Your task to perform on an android device: Open Reddit.com Image 0: 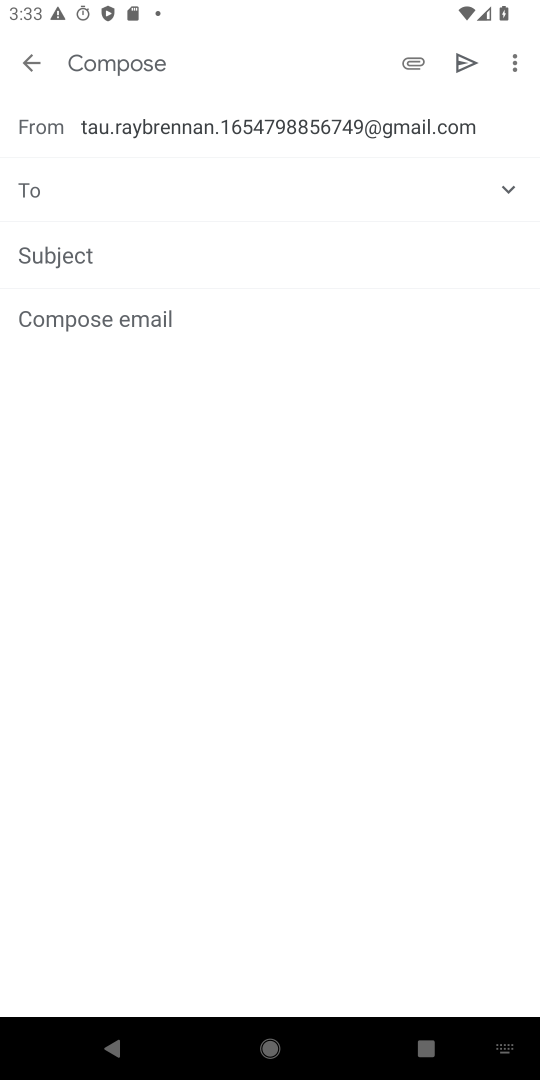
Step 0: press home button
Your task to perform on an android device: Open Reddit.com Image 1: 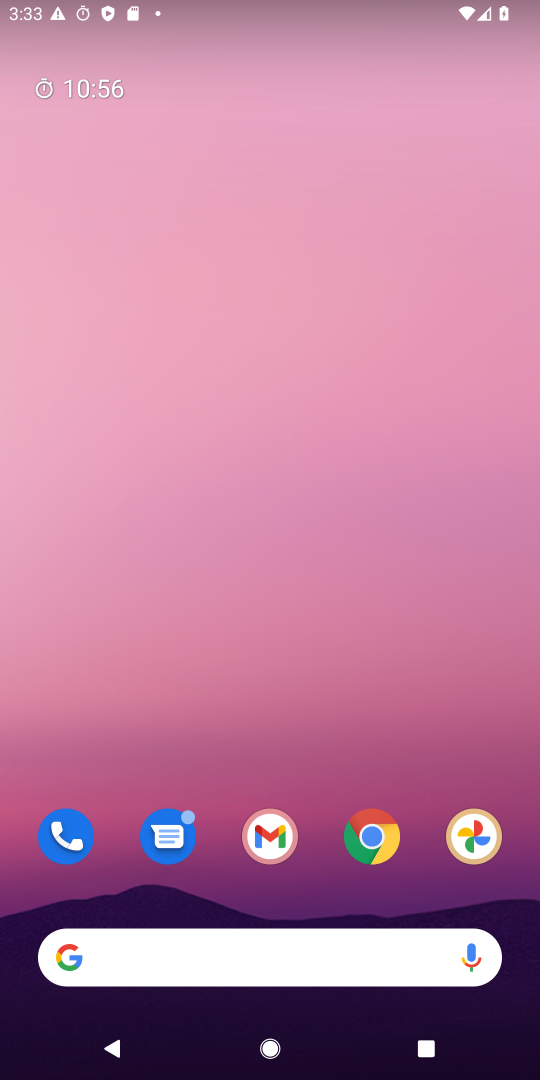
Step 1: click (366, 846)
Your task to perform on an android device: Open Reddit.com Image 2: 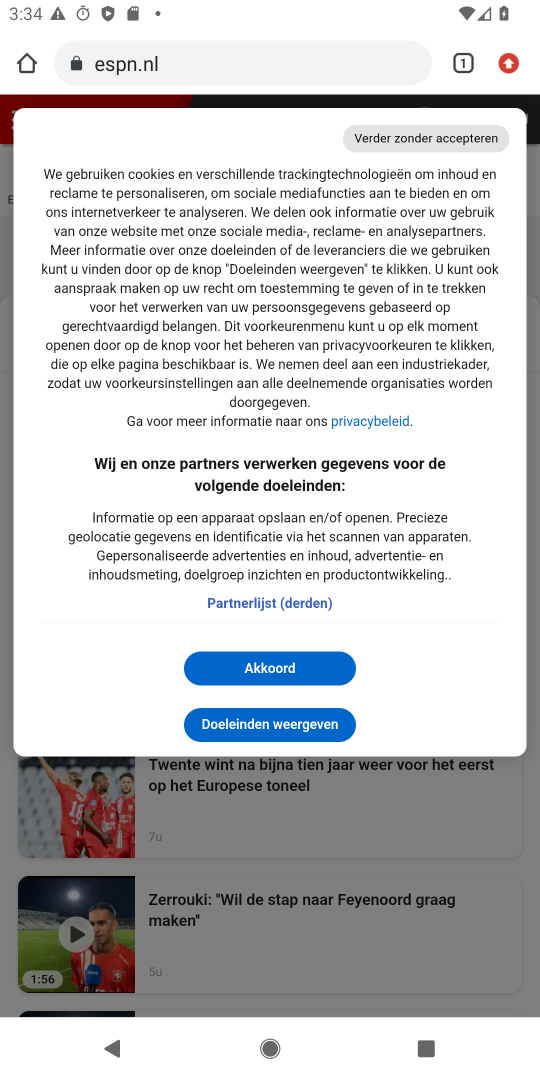
Step 2: click (232, 75)
Your task to perform on an android device: Open Reddit.com Image 3: 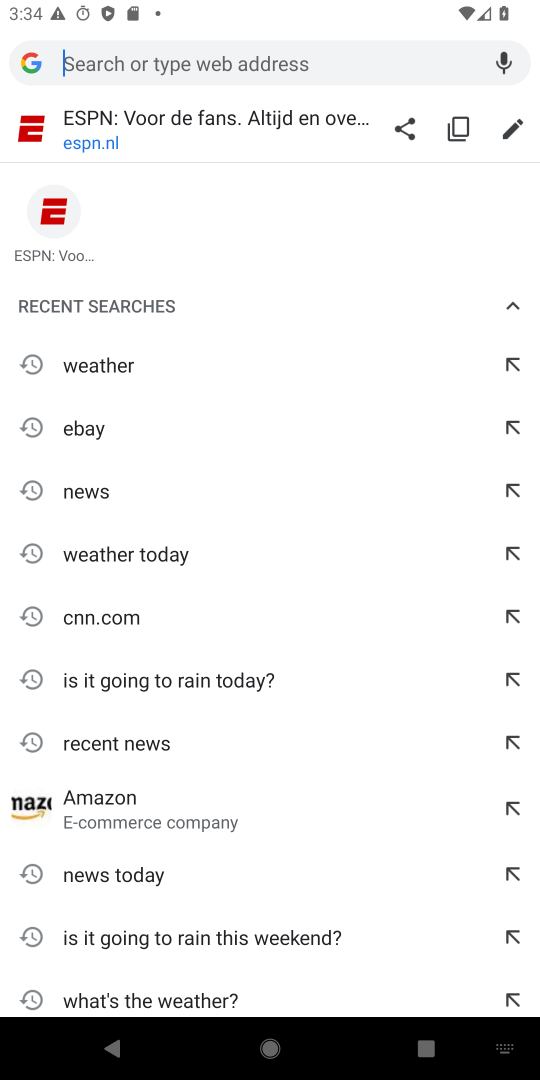
Step 3: type "Reddit.com"
Your task to perform on an android device: Open Reddit.com Image 4: 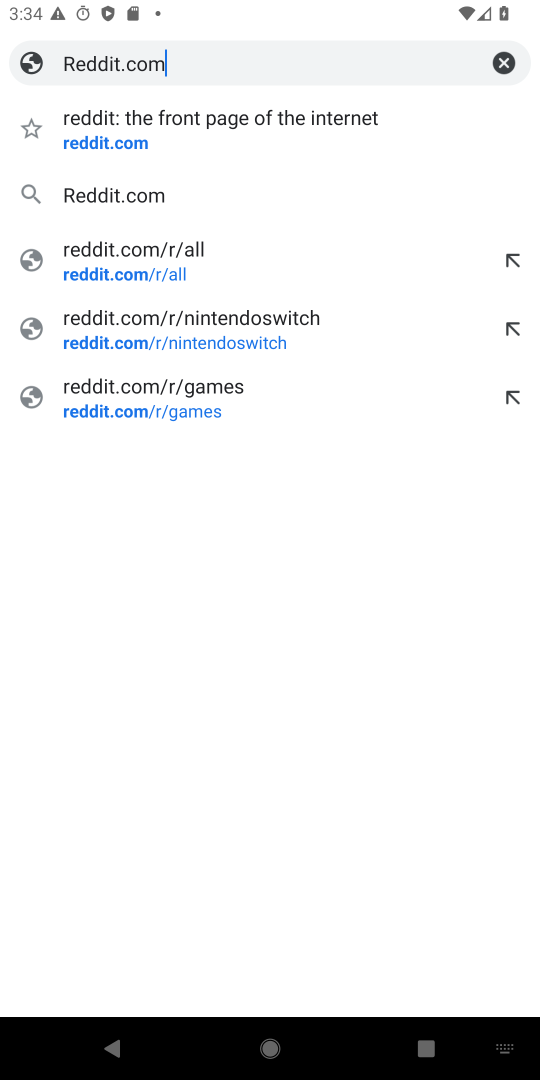
Step 4: click (138, 144)
Your task to perform on an android device: Open Reddit.com Image 5: 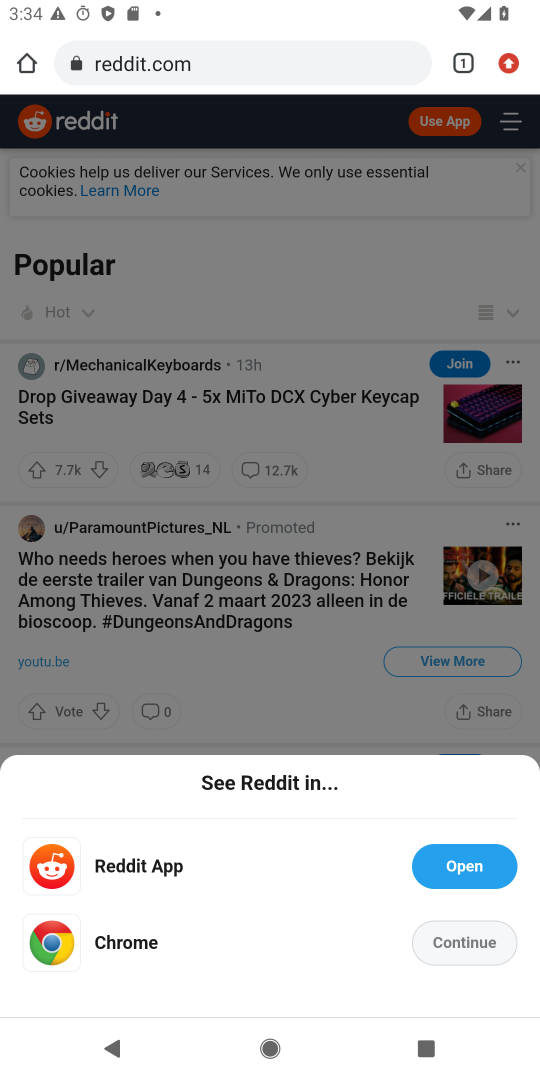
Step 5: click (452, 949)
Your task to perform on an android device: Open Reddit.com Image 6: 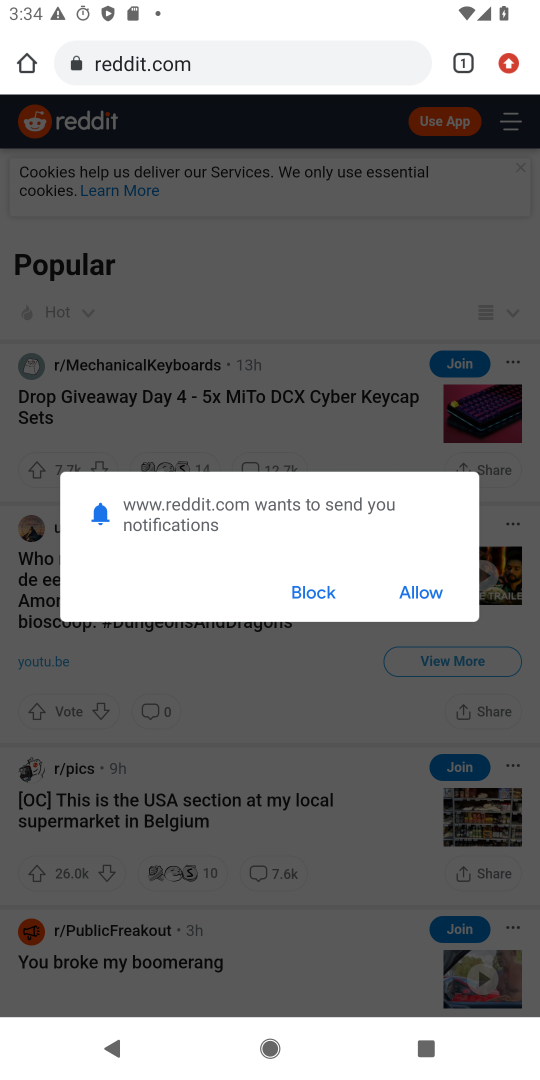
Step 6: click (432, 586)
Your task to perform on an android device: Open Reddit.com Image 7: 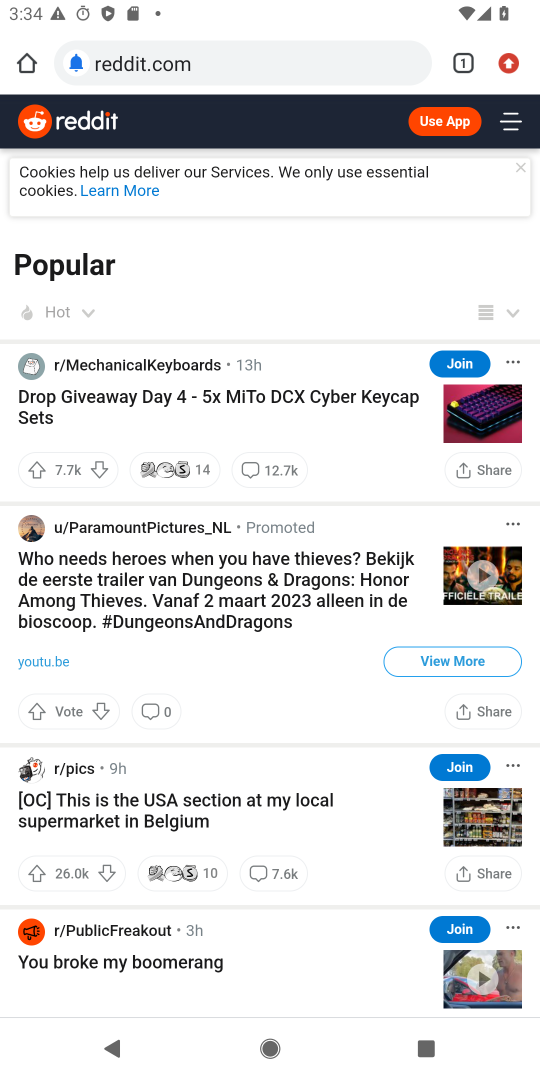
Step 7: task complete